Your task to perform on an android device: set an alarm Image 0: 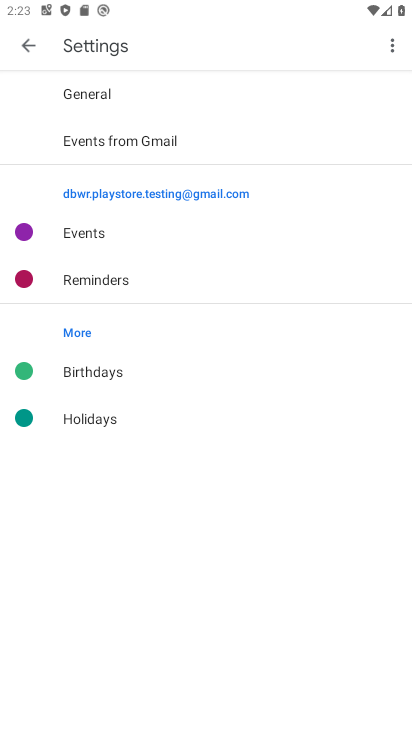
Step 0: press back button
Your task to perform on an android device: set an alarm Image 1: 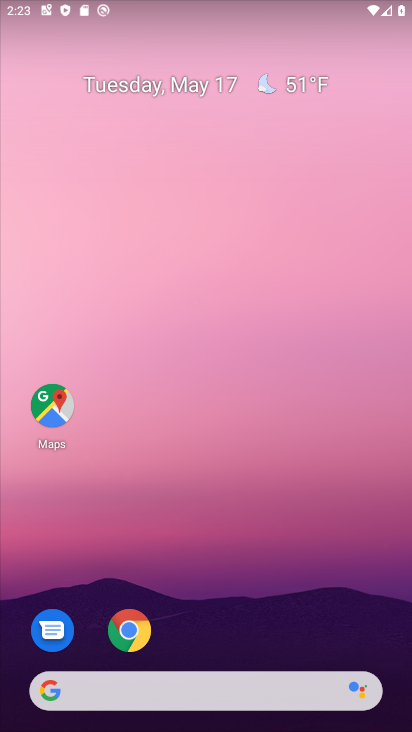
Step 1: drag from (212, 636) to (323, 47)
Your task to perform on an android device: set an alarm Image 2: 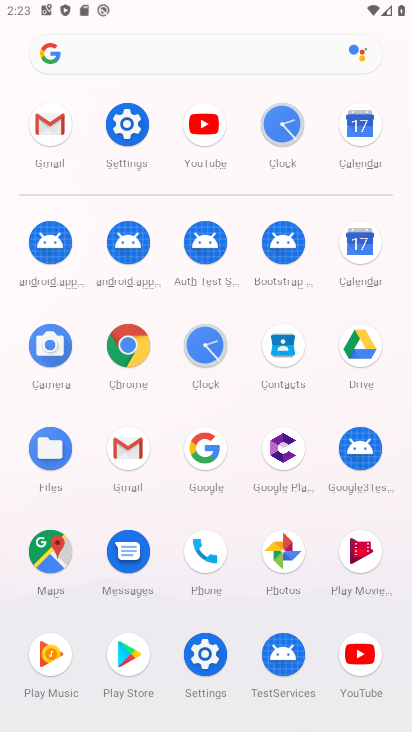
Step 2: click (282, 118)
Your task to perform on an android device: set an alarm Image 3: 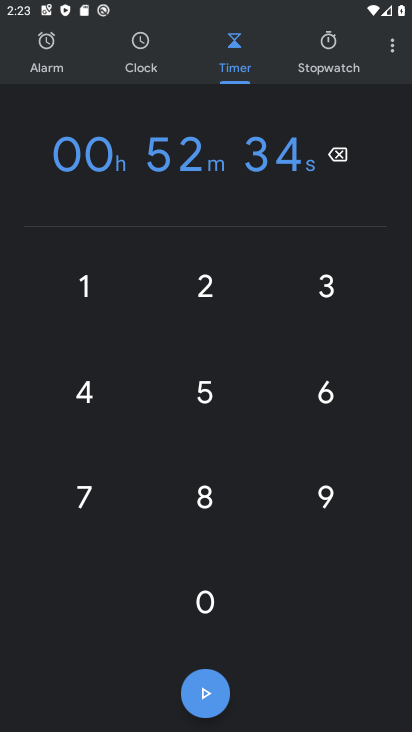
Step 3: click (37, 45)
Your task to perform on an android device: set an alarm Image 4: 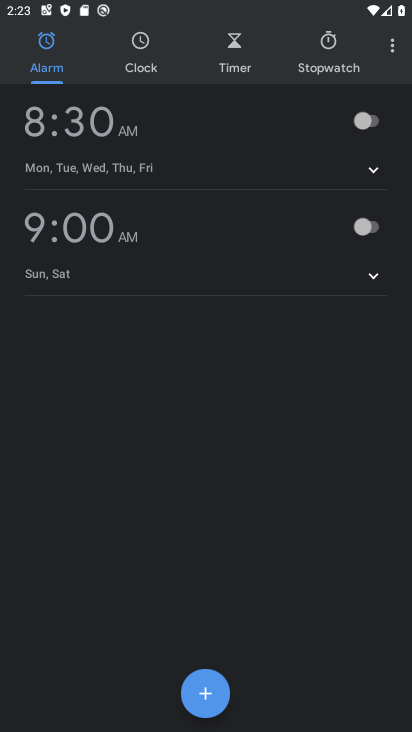
Step 4: click (354, 124)
Your task to perform on an android device: set an alarm Image 5: 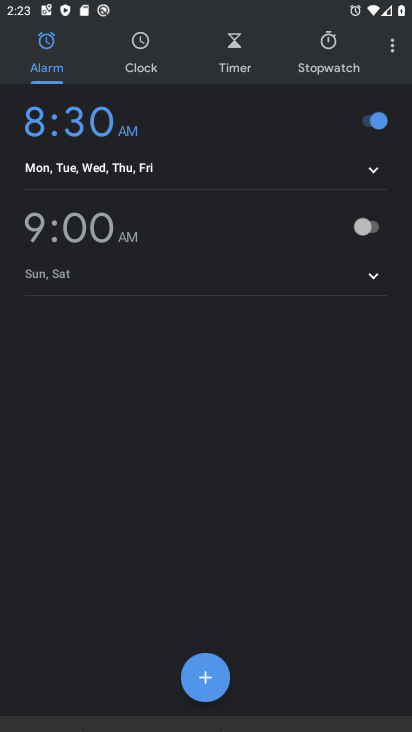
Step 5: task complete